Your task to perform on an android device: Open Google Maps Image 0: 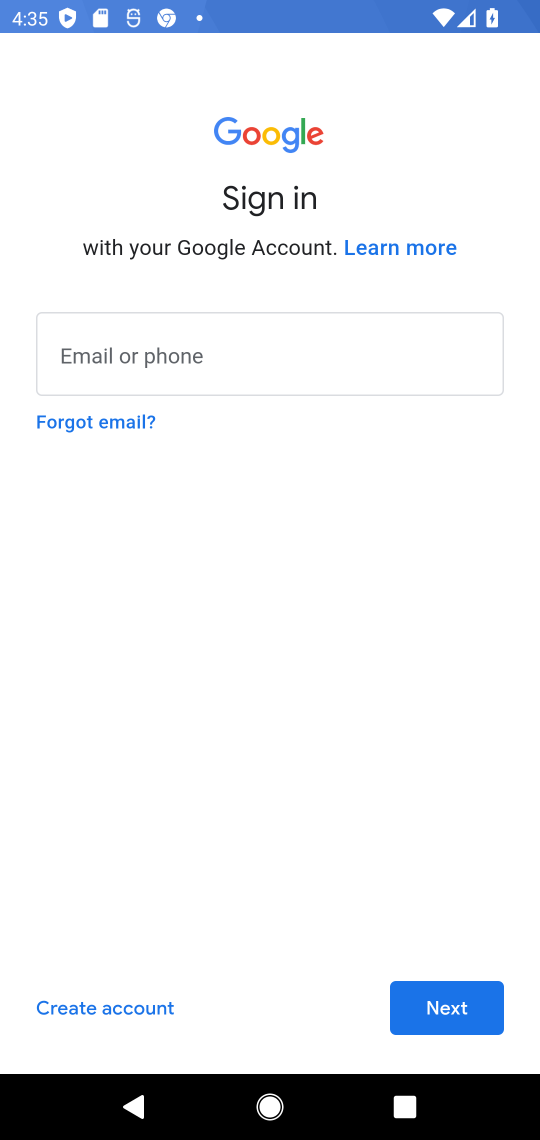
Step 0: press home button
Your task to perform on an android device: Open Google Maps Image 1: 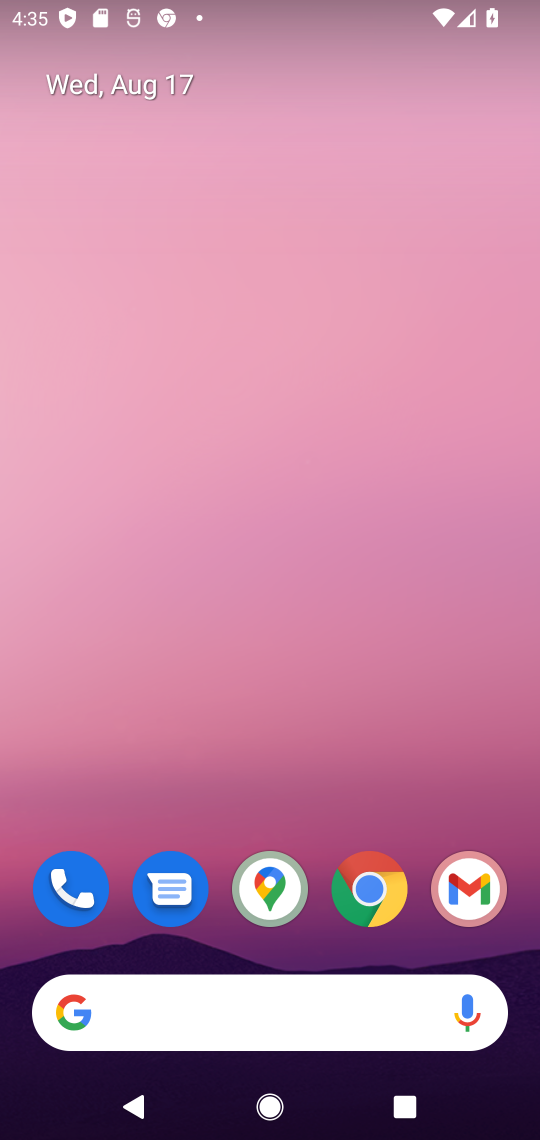
Step 1: click (269, 881)
Your task to perform on an android device: Open Google Maps Image 2: 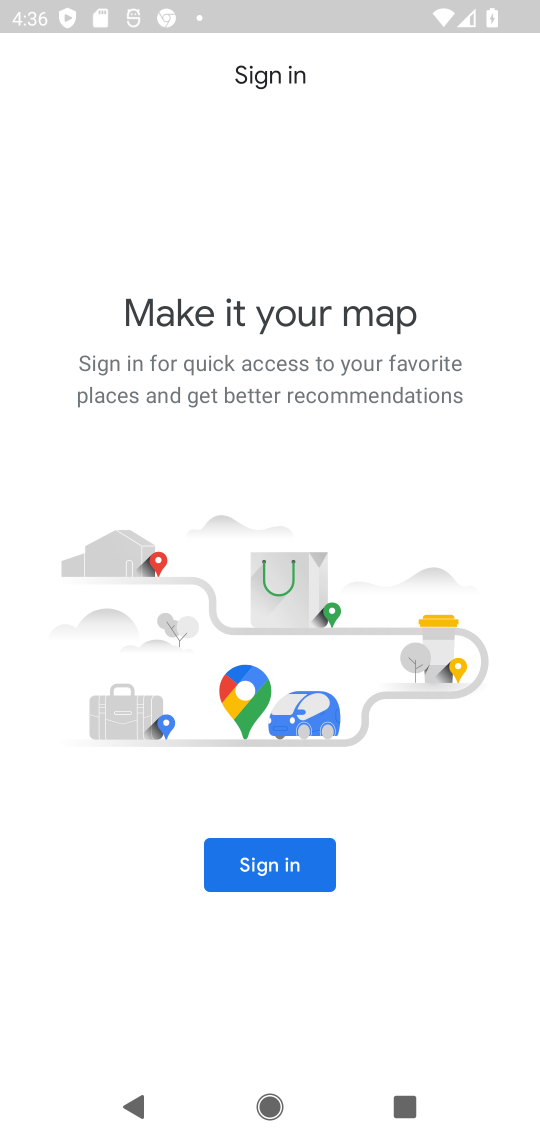
Step 2: click (302, 872)
Your task to perform on an android device: Open Google Maps Image 3: 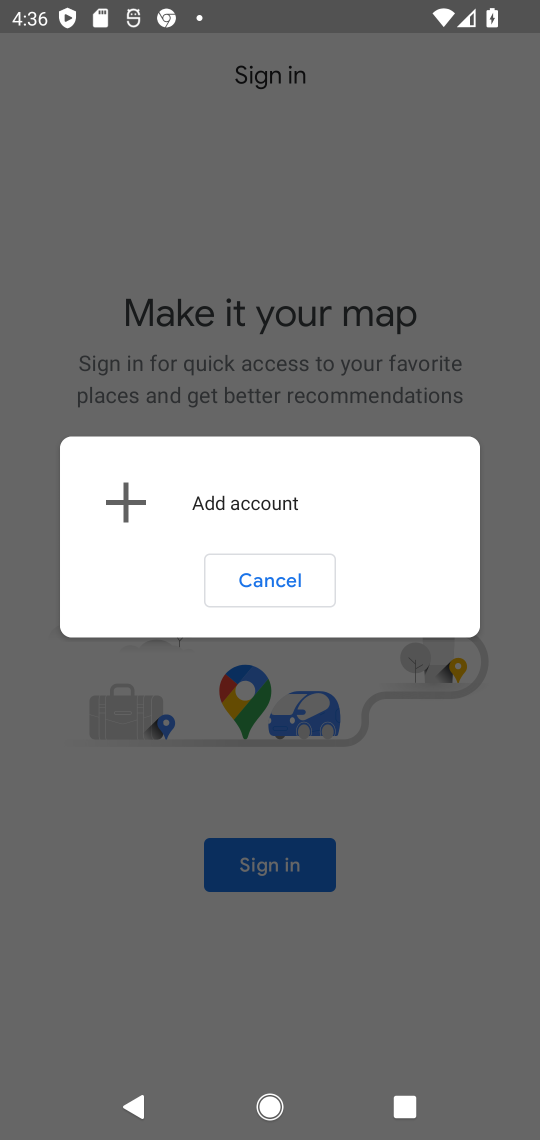
Step 3: click (277, 584)
Your task to perform on an android device: Open Google Maps Image 4: 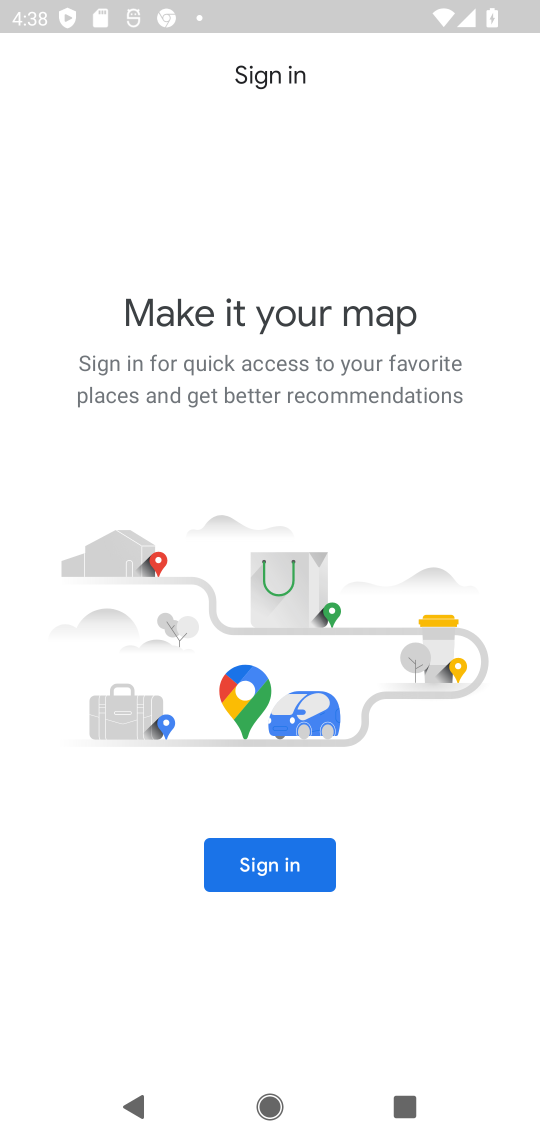
Step 4: task complete